Your task to perform on an android device: delete location history Image 0: 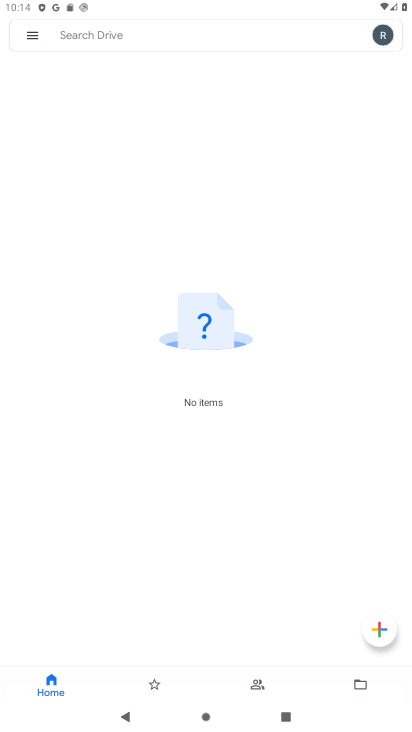
Step 0: press home button
Your task to perform on an android device: delete location history Image 1: 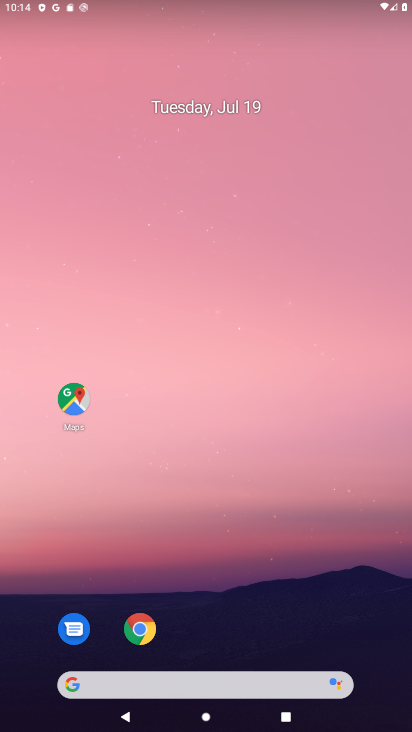
Step 1: drag from (245, 676) to (300, 271)
Your task to perform on an android device: delete location history Image 2: 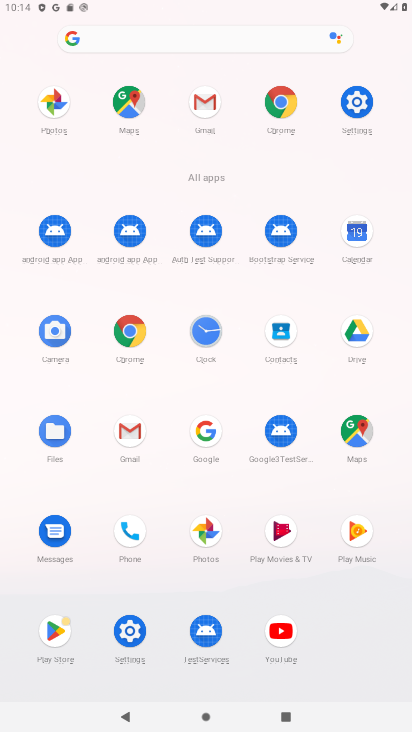
Step 2: click (137, 628)
Your task to perform on an android device: delete location history Image 3: 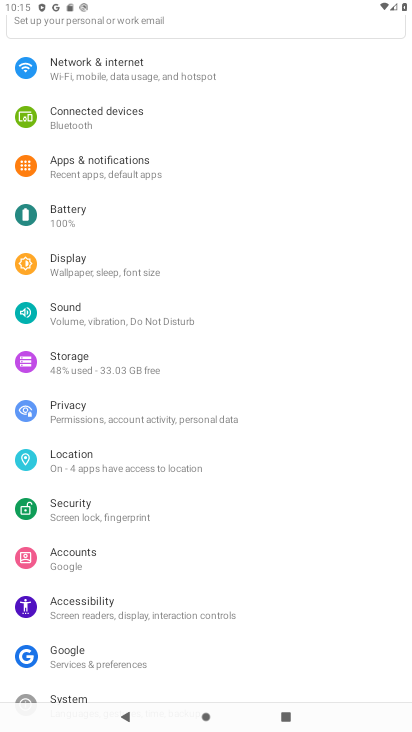
Step 3: click (142, 470)
Your task to perform on an android device: delete location history Image 4: 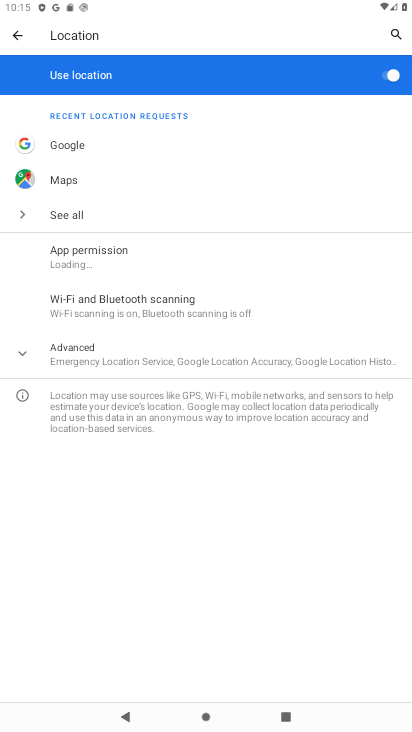
Step 4: click (209, 364)
Your task to perform on an android device: delete location history Image 5: 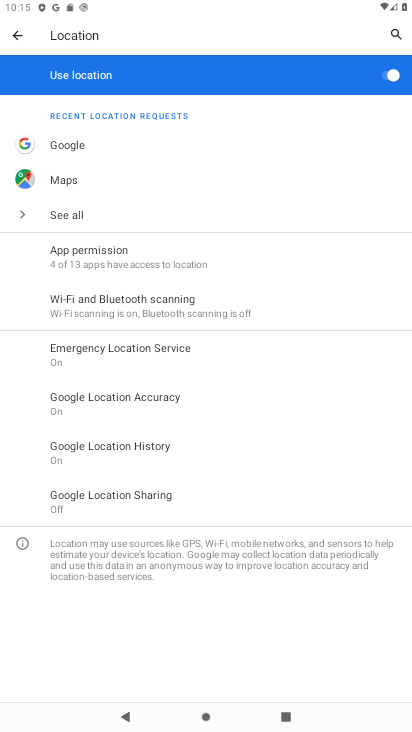
Step 5: click (171, 450)
Your task to perform on an android device: delete location history Image 6: 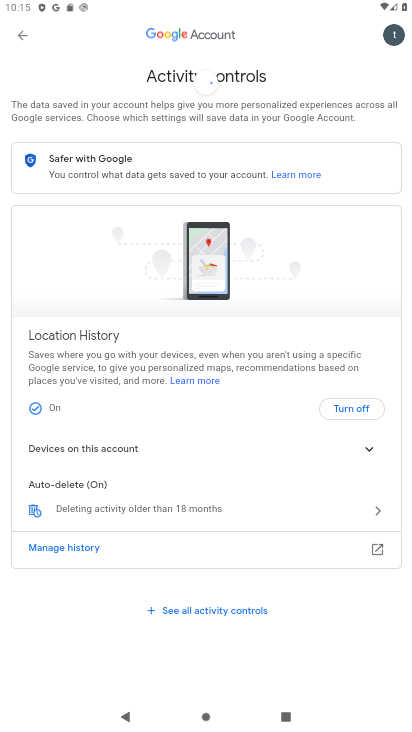
Step 6: click (206, 559)
Your task to perform on an android device: delete location history Image 7: 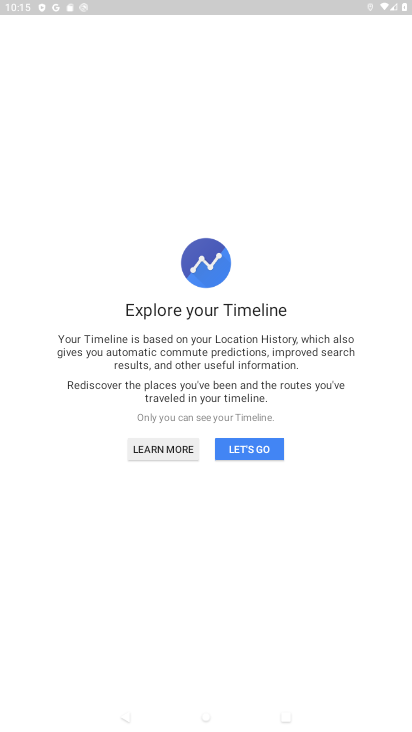
Step 7: click (244, 450)
Your task to perform on an android device: delete location history Image 8: 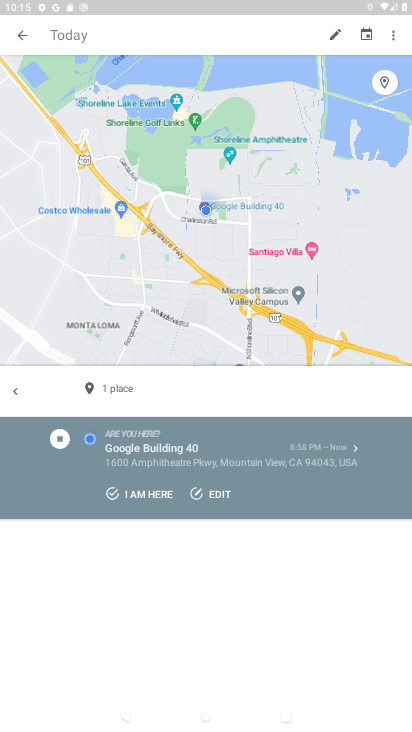
Step 8: click (392, 38)
Your task to perform on an android device: delete location history Image 9: 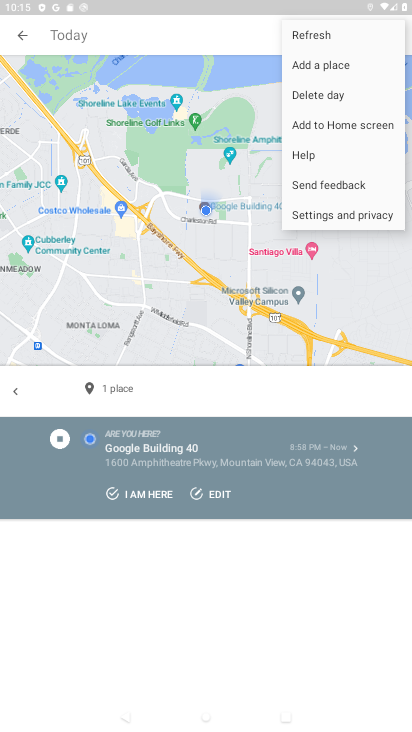
Step 9: click (338, 100)
Your task to perform on an android device: delete location history Image 10: 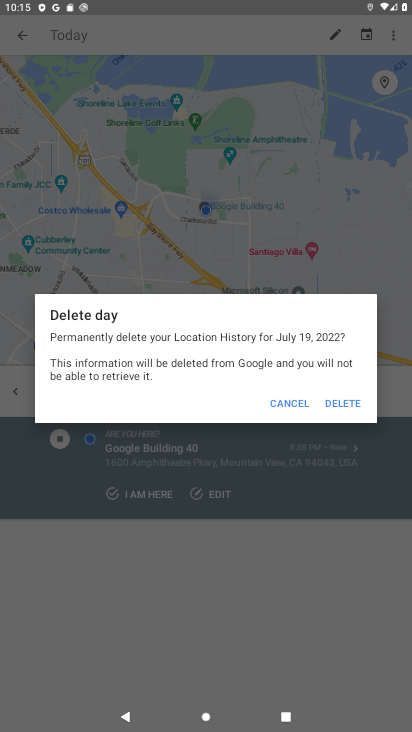
Step 10: click (351, 402)
Your task to perform on an android device: delete location history Image 11: 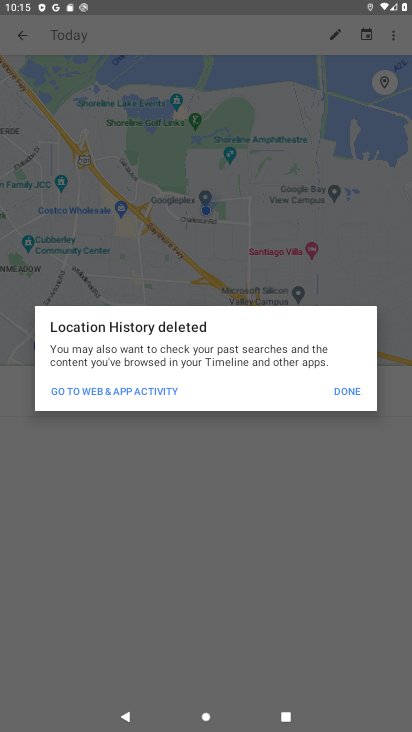
Step 11: click (349, 395)
Your task to perform on an android device: delete location history Image 12: 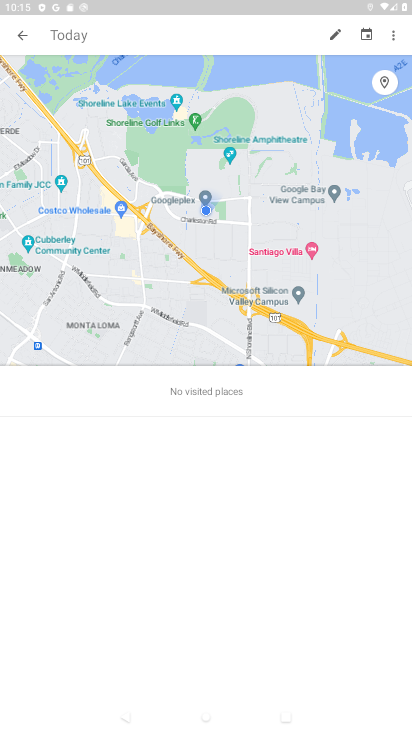
Step 12: task complete